Your task to perform on an android device: Open the map Image 0: 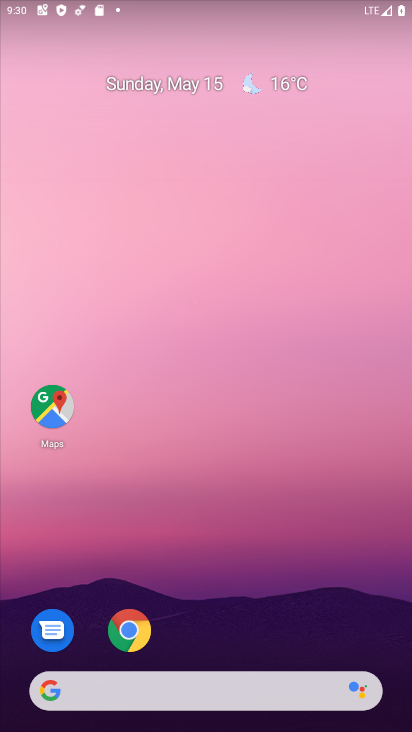
Step 0: click (259, 216)
Your task to perform on an android device: Open the map Image 1: 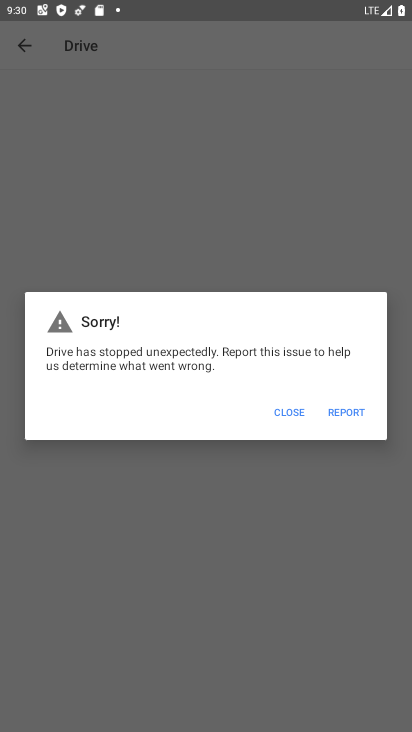
Step 1: drag from (193, 657) to (216, 194)
Your task to perform on an android device: Open the map Image 2: 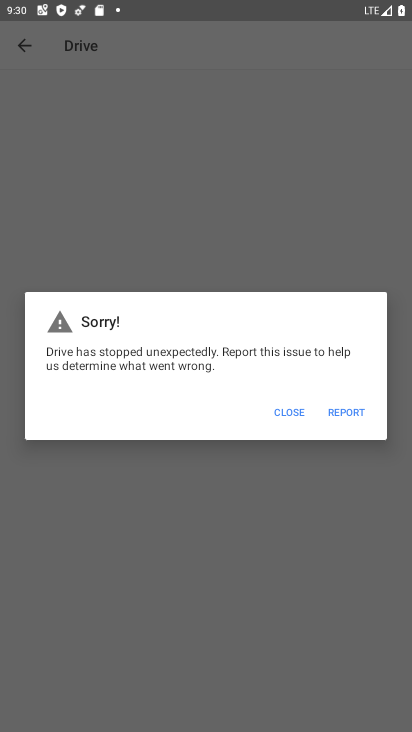
Step 2: press home button
Your task to perform on an android device: Open the map Image 3: 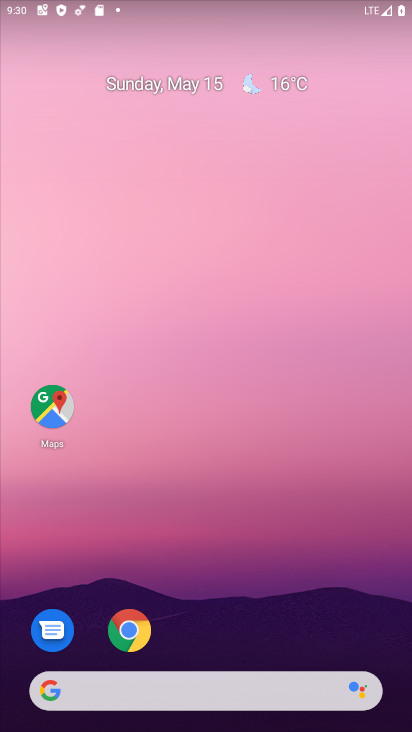
Step 3: drag from (190, 640) to (204, 140)
Your task to perform on an android device: Open the map Image 4: 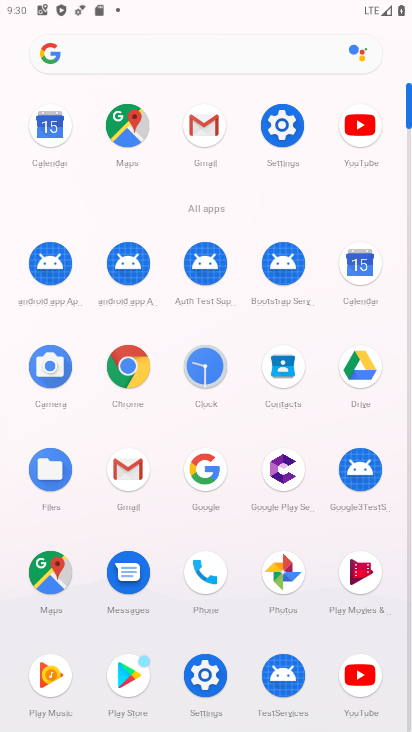
Step 4: click (127, 126)
Your task to perform on an android device: Open the map Image 5: 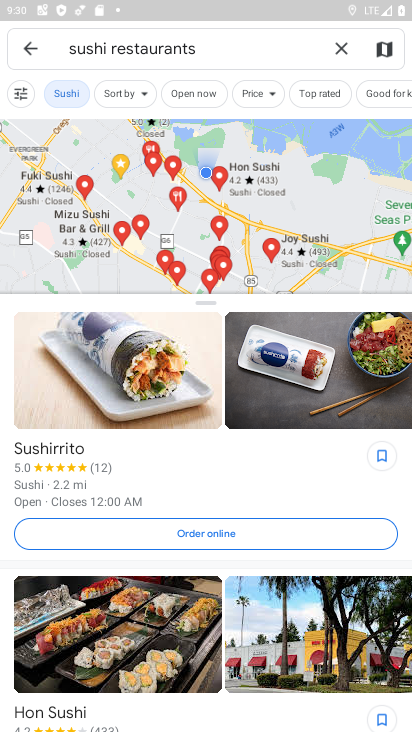
Step 5: task complete